Your task to perform on an android device: Open Google Chrome and open the bookmarks view Image 0: 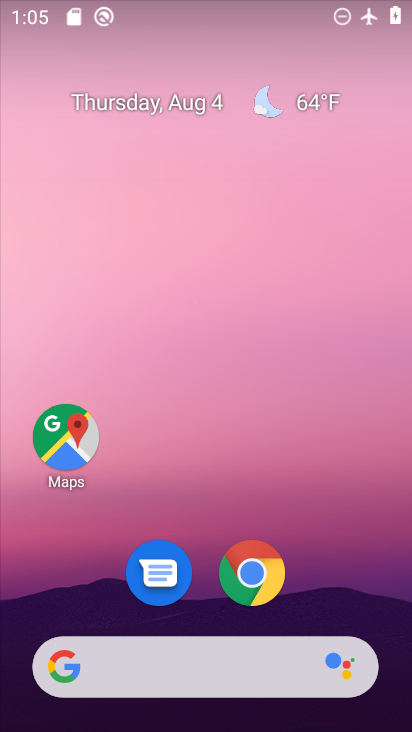
Step 0: click (259, 574)
Your task to perform on an android device: Open Google Chrome and open the bookmarks view Image 1: 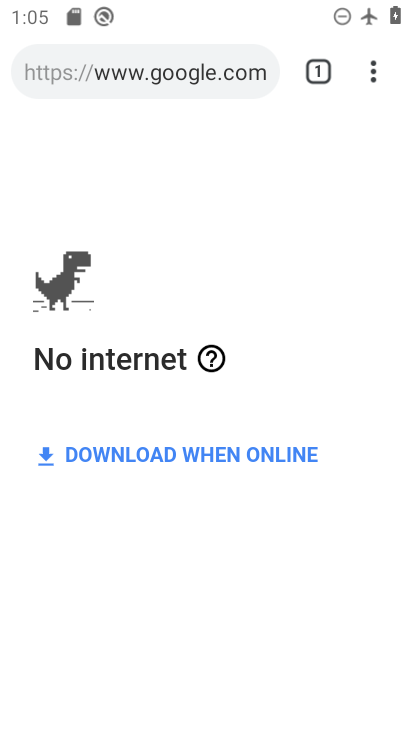
Step 1: task complete